Your task to perform on an android device: Open Chrome and go to settings Image 0: 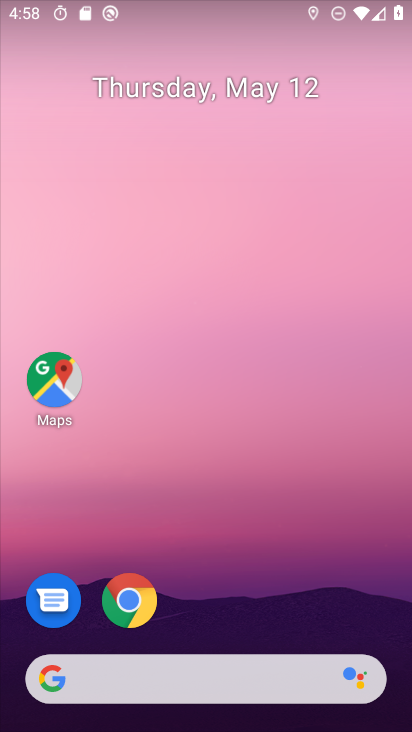
Step 0: drag from (168, 583) to (233, 190)
Your task to perform on an android device: Open Chrome and go to settings Image 1: 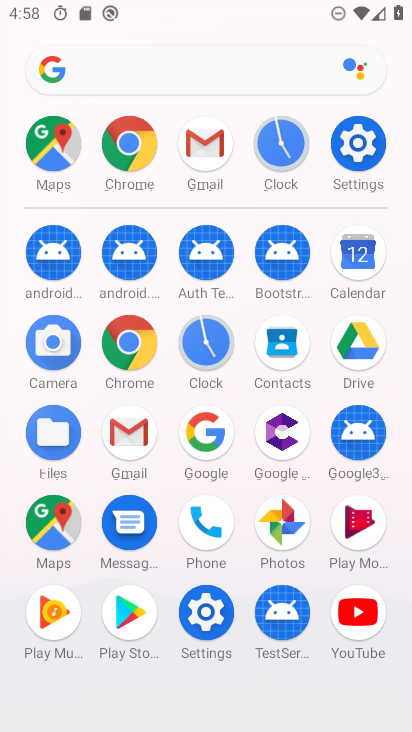
Step 1: click (350, 149)
Your task to perform on an android device: Open Chrome and go to settings Image 2: 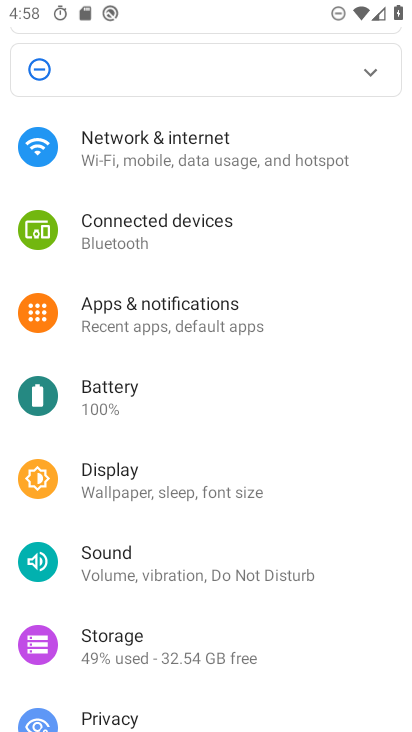
Step 2: press home button
Your task to perform on an android device: Open Chrome and go to settings Image 3: 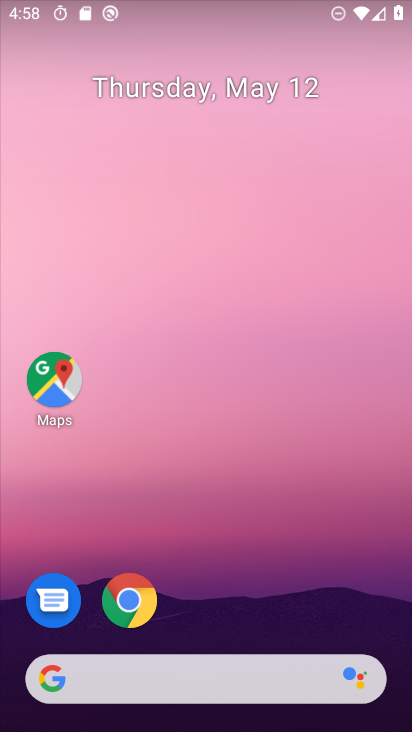
Step 3: drag from (164, 608) to (217, 96)
Your task to perform on an android device: Open Chrome and go to settings Image 4: 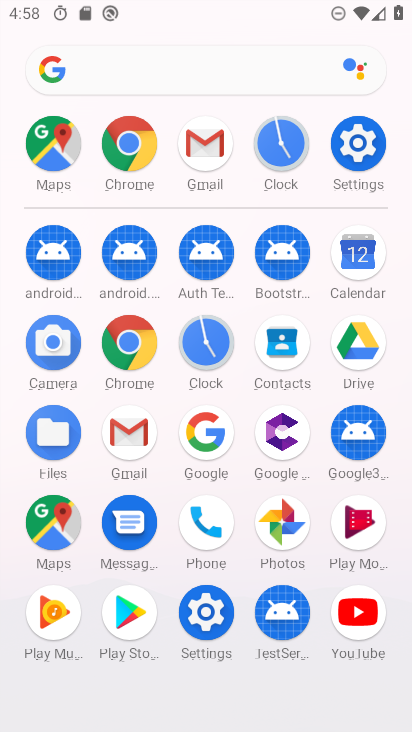
Step 4: click (356, 148)
Your task to perform on an android device: Open Chrome and go to settings Image 5: 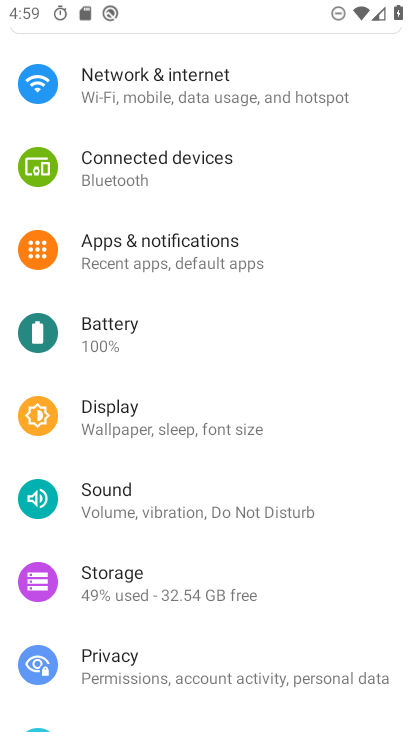
Step 5: drag from (205, 243) to (241, 543)
Your task to perform on an android device: Open Chrome and go to settings Image 6: 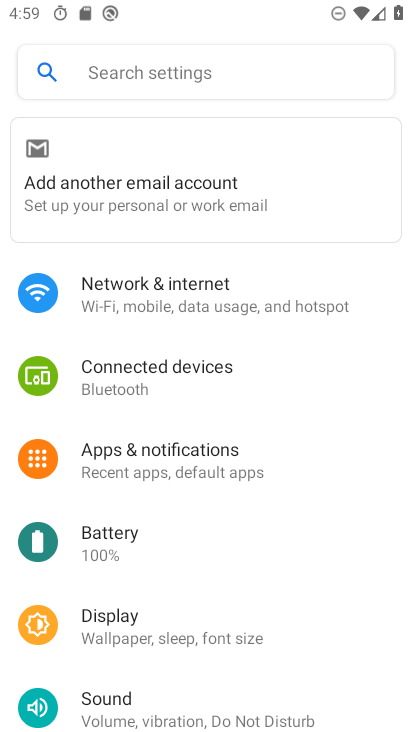
Step 6: press home button
Your task to perform on an android device: Open Chrome and go to settings Image 7: 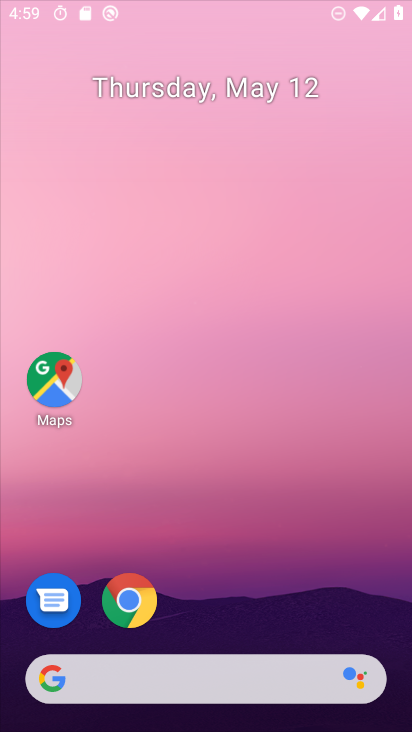
Step 7: drag from (245, 670) to (310, 135)
Your task to perform on an android device: Open Chrome and go to settings Image 8: 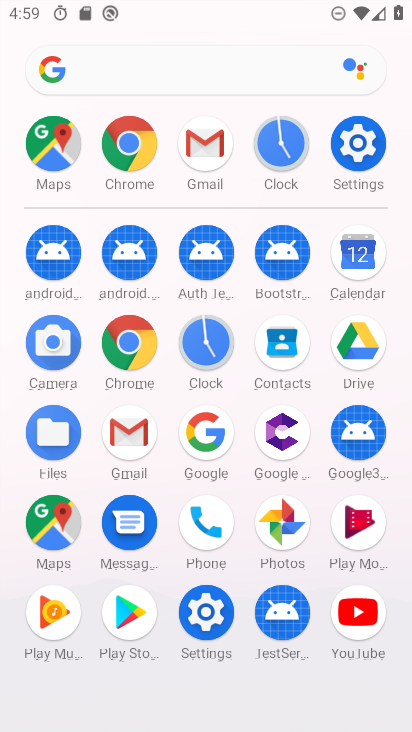
Step 8: click (141, 160)
Your task to perform on an android device: Open Chrome and go to settings Image 9: 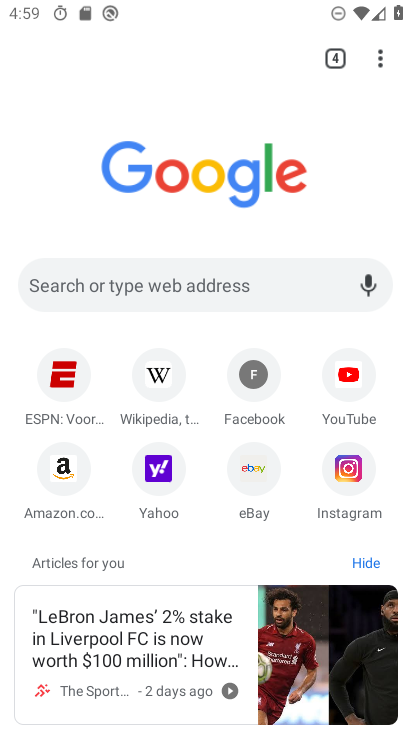
Step 9: click (383, 44)
Your task to perform on an android device: Open Chrome and go to settings Image 10: 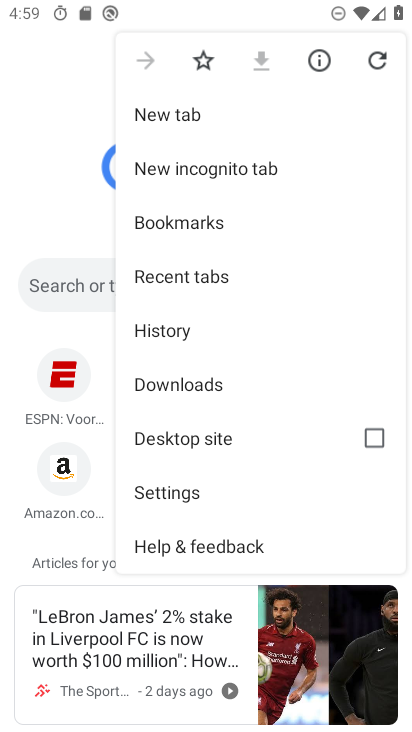
Step 10: click (221, 486)
Your task to perform on an android device: Open Chrome and go to settings Image 11: 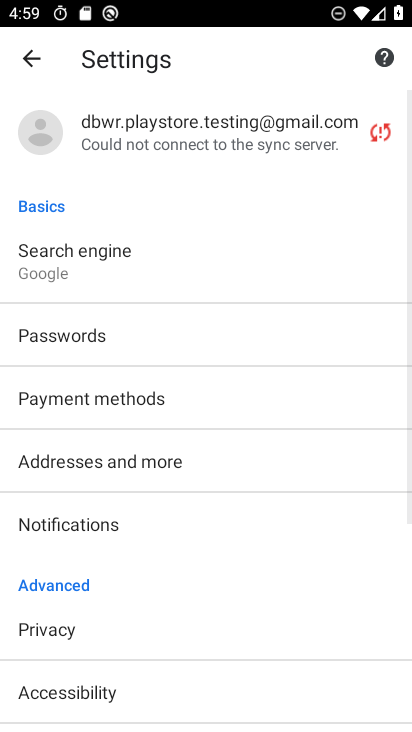
Step 11: task complete